Your task to perform on an android device: check data usage Image 0: 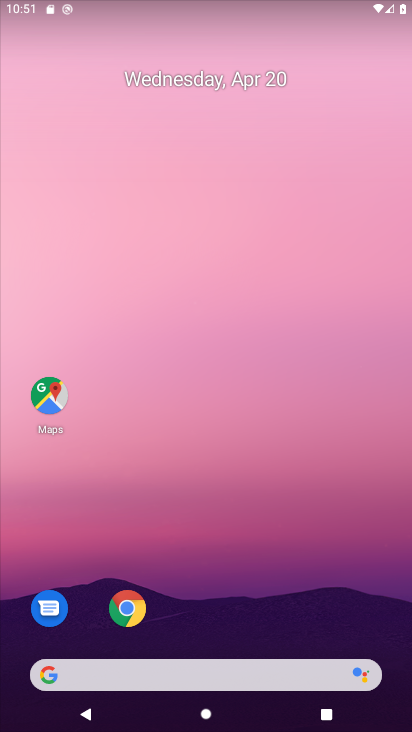
Step 0: drag from (318, 553) to (341, 147)
Your task to perform on an android device: check data usage Image 1: 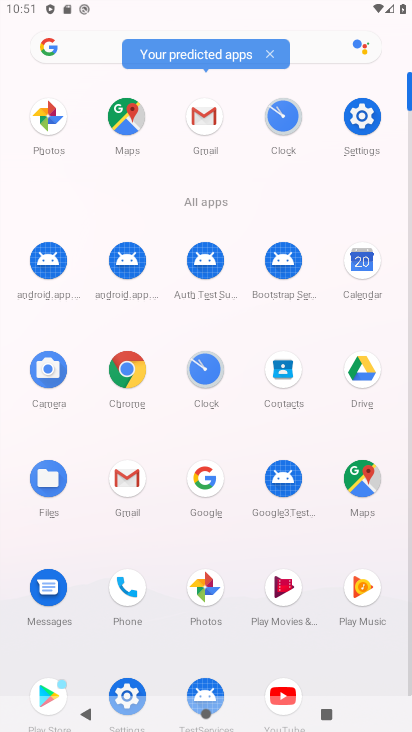
Step 1: click (362, 128)
Your task to perform on an android device: check data usage Image 2: 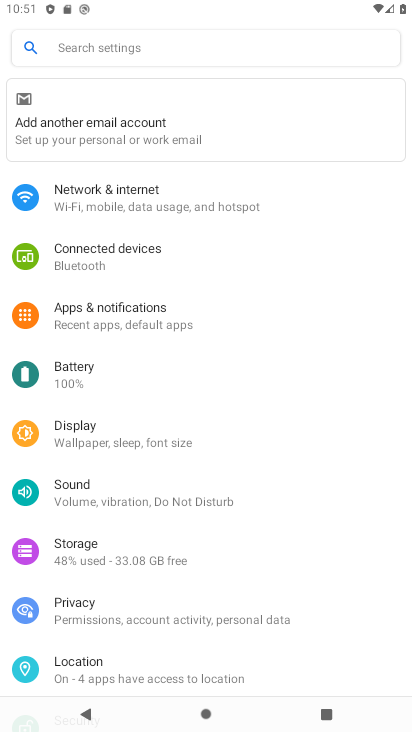
Step 2: click (113, 194)
Your task to perform on an android device: check data usage Image 3: 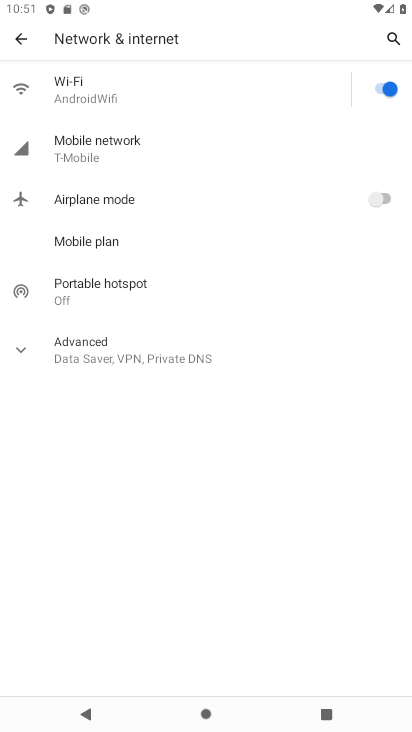
Step 3: click (151, 152)
Your task to perform on an android device: check data usage Image 4: 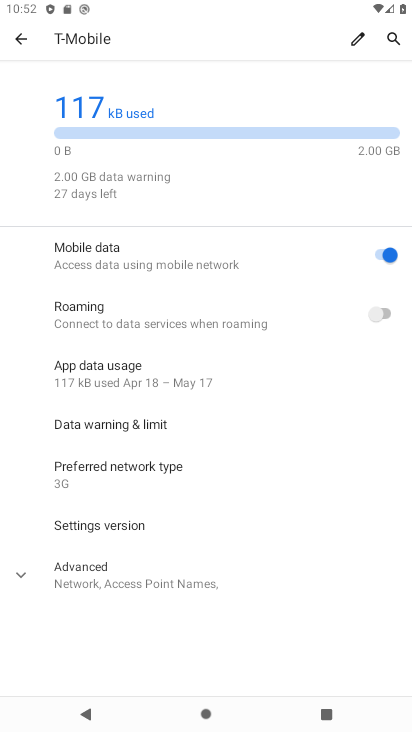
Step 4: press back button
Your task to perform on an android device: check data usage Image 5: 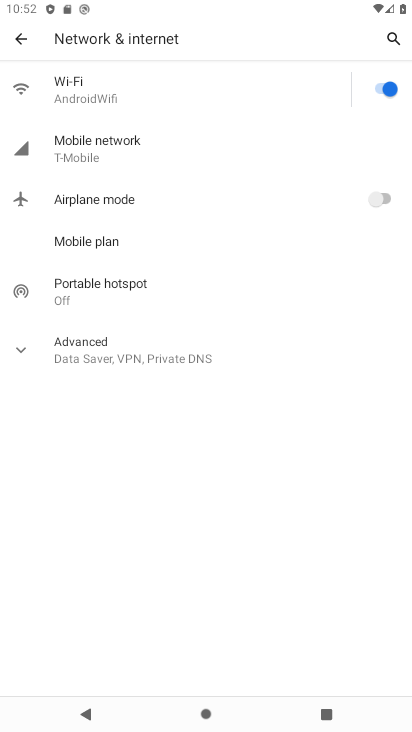
Step 5: press home button
Your task to perform on an android device: check data usage Image 6: 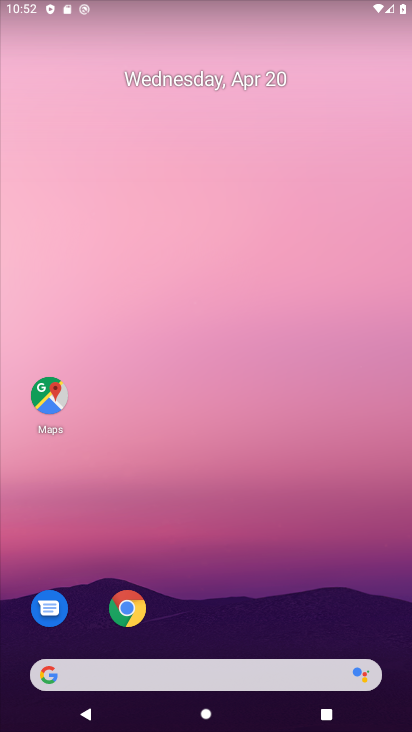
Step 6: drag from (243, 591) to (227, 88)
Your task to perform on an android device: check data usage Image 7: 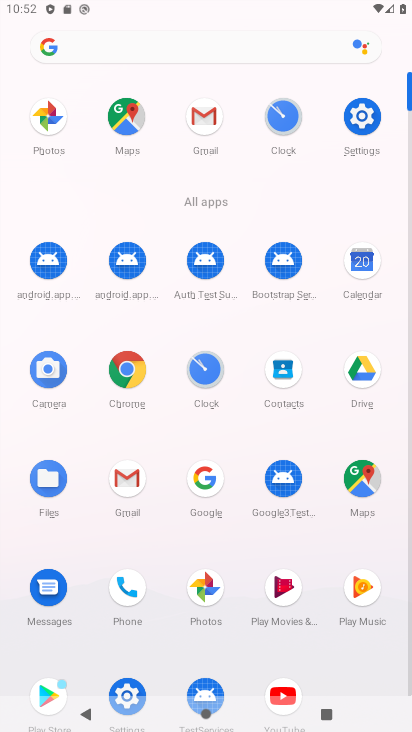
Step 7: click (352, 122)
Your task to perform on an android device: check data usage Image 8: 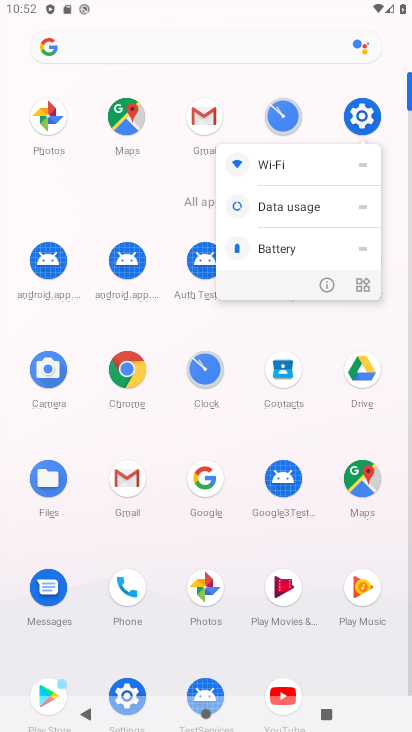
Step 8: click (359, 130)
Your task to perform on an android device: check data usage Image 9: 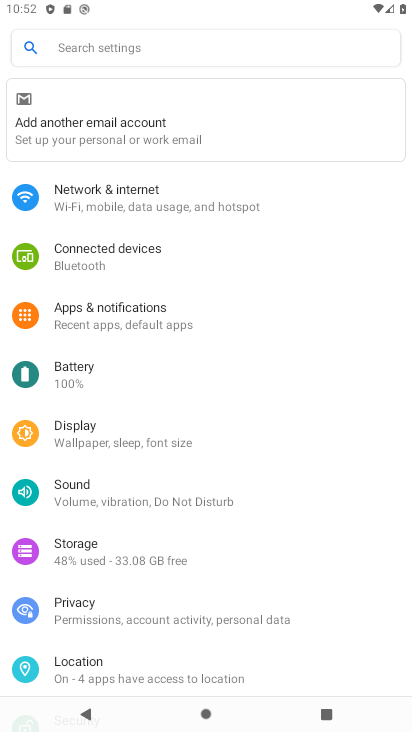
Step 9: click (164, 211)
Your task to perform on an android device: check data usage Image 10: 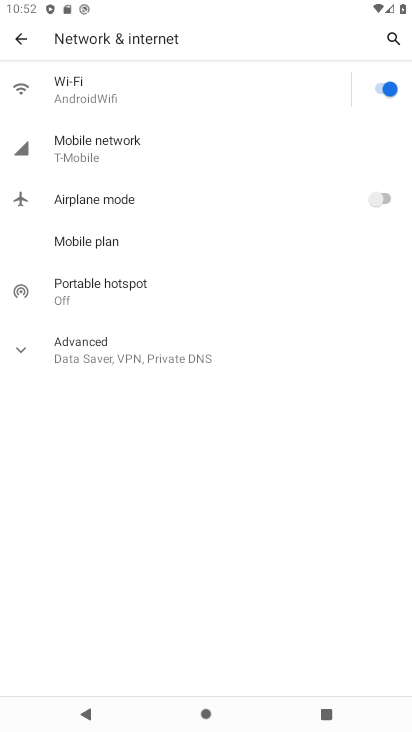
Step 10: click (121, 156)
Your task to perform on an android device: check data usage Image 11: 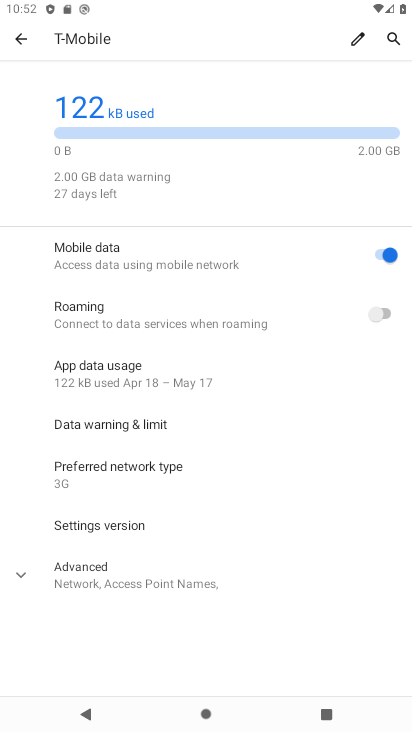
Step 11: click (135, 372)
Your task to perform on an android device: check data usage Image 12: 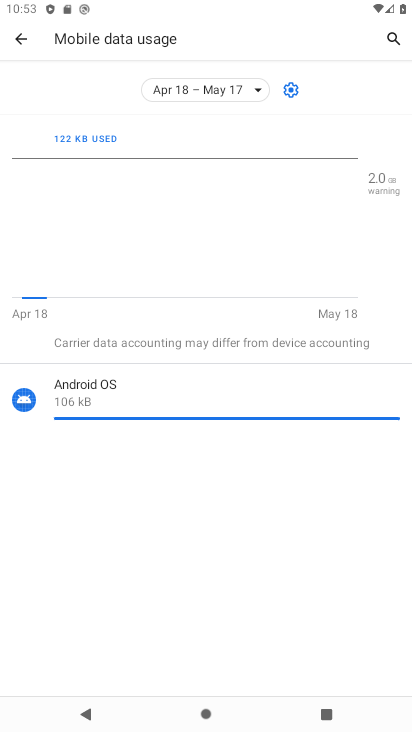
Step 12: task complete